Your task to perform on an android device: turn off location history Image 0: 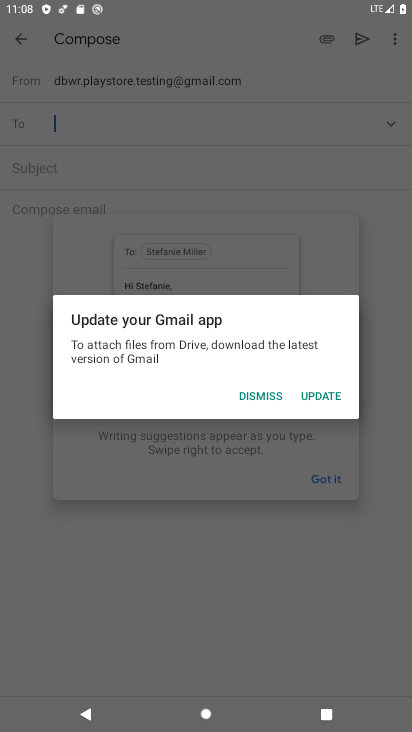
Step 0: click (267, 398)
Your task to perform on an android device: turn off location history Image 1: 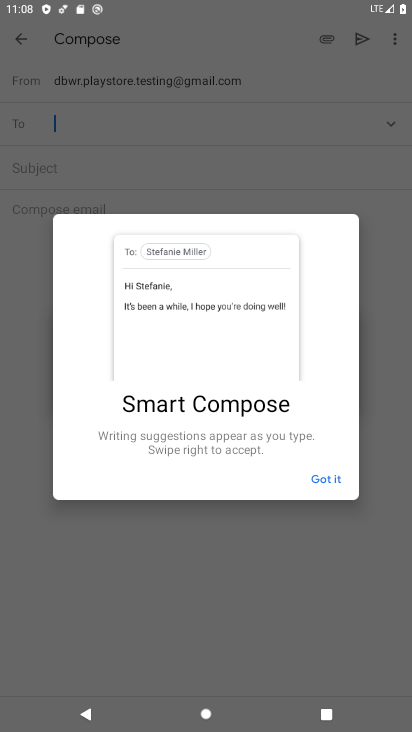
Step 1: press home button
Your task to perform on an android device: turn off location history Image 2: 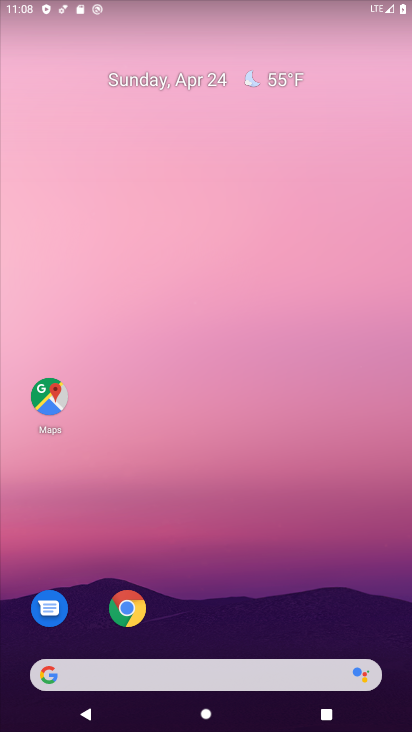
Step 2: drag from (205, 616) to (236, 13)
Your task to perform on an android device: turn off location history Image 3: 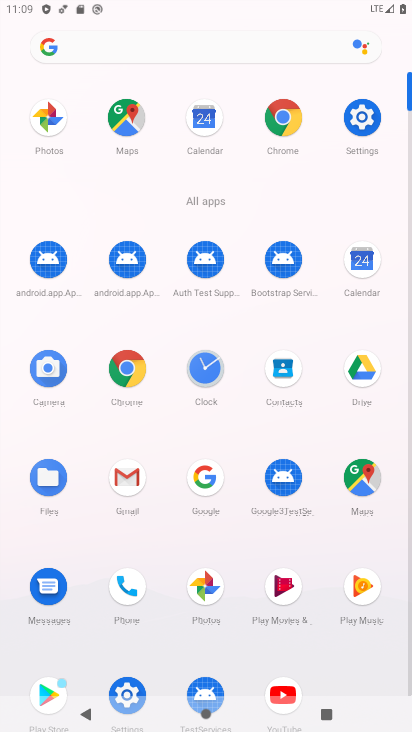
Step 3: click (364, 132)
Your task to perform on an android device: turn off location history Image 4: 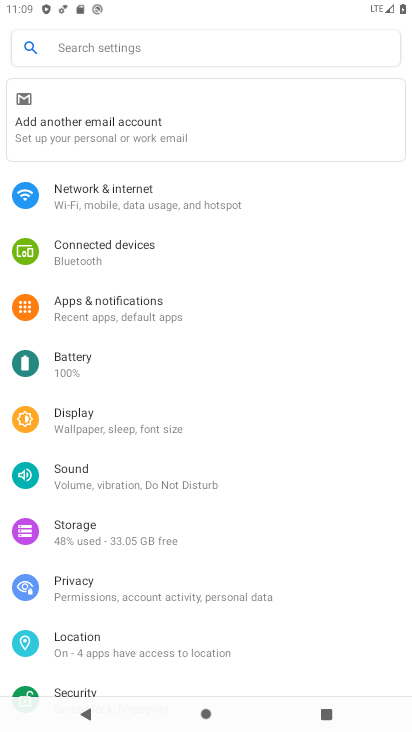
Step 4: click (90, 641)
Your task to perform on an android device: turn off location history Image 5: 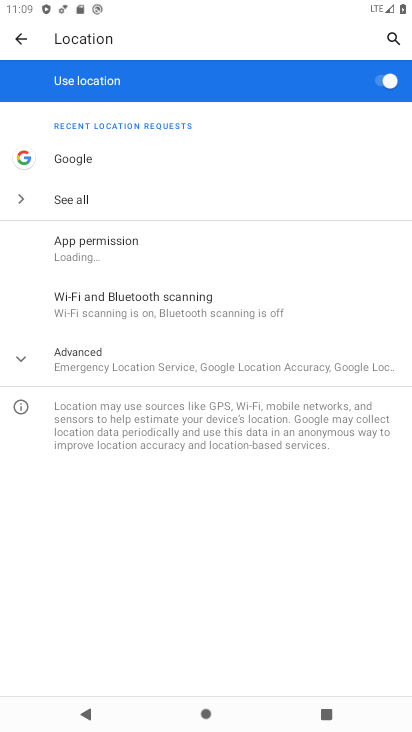
Step 5: click (118, 369)
Your task to perform on an android device: turn off location history Image 6: 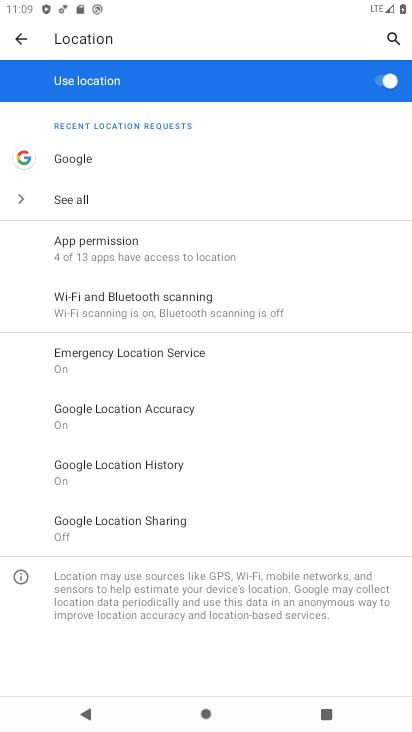
Step 6: click (128, 470)
Your task to perform on an android device: turn off location history Image 7: 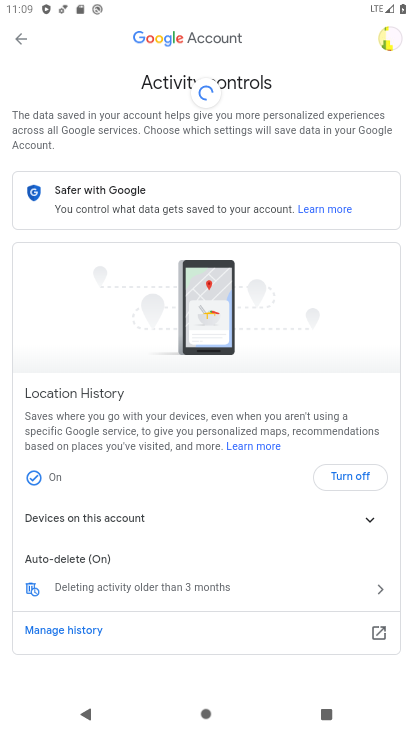
Step 7: click (363, 483)
Your task to perform on an android device: turn off location history Image 8: 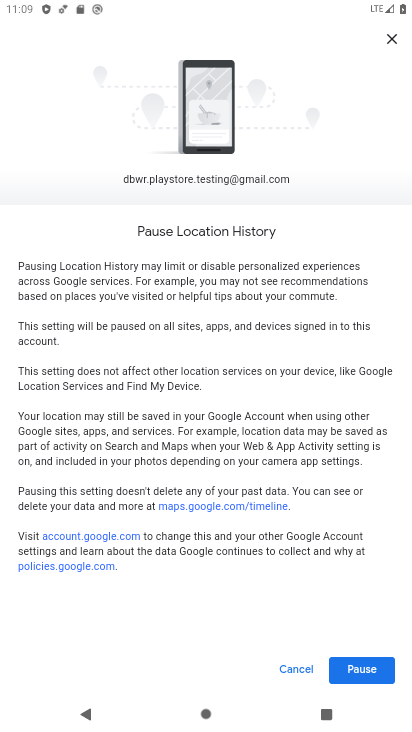
Step 8: drag from (270, 548) to (281, 465)
Your task to perform on an android device: turn off location history Image 9: 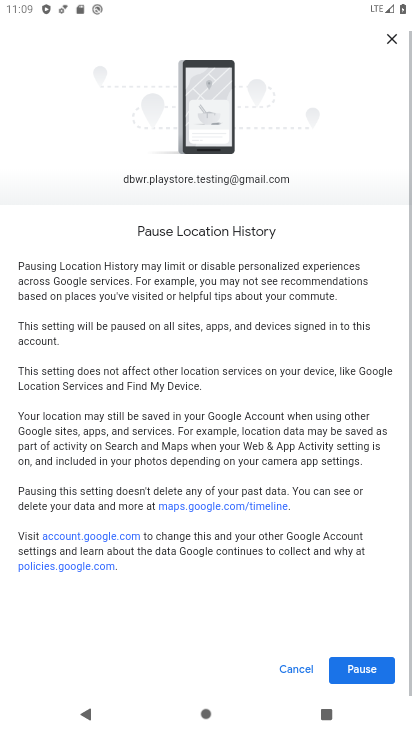
Step 9: click (356, 665)
Your task to perform on an android device: turn off location history Image 10: 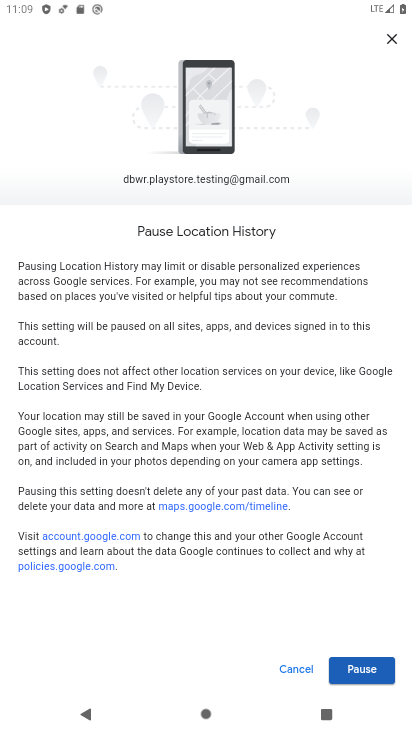
Step 10: click (364, 669)
Your task to perform on an android device: turn off location history Image 11: 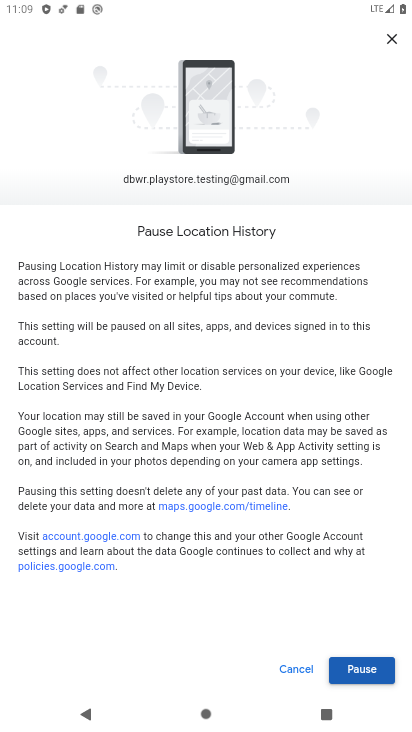
Step 11: click (369, 676)
Your task to perform on an android device: turn off location history Image 12: 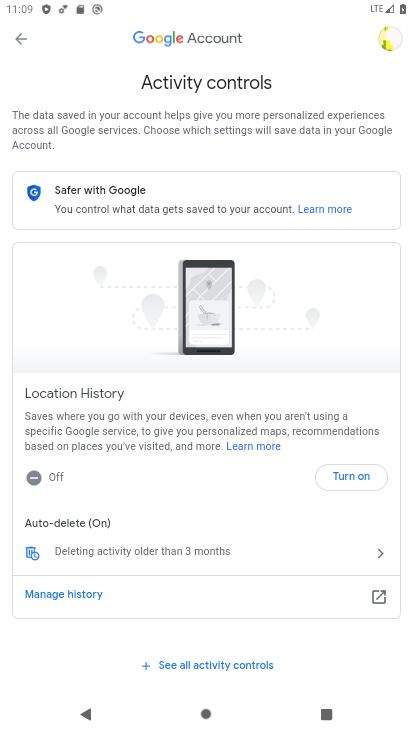
Step 12: task complete